Your task to perform on an android device: turn smart compose on in the gmail app Image 0: 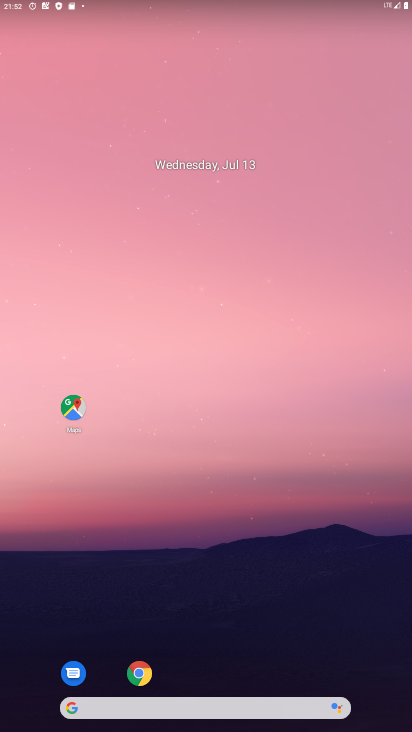
Step 0: click (267, 206)
Your task to perform on an android device: turn smart compose on in the gmail app Image 1: 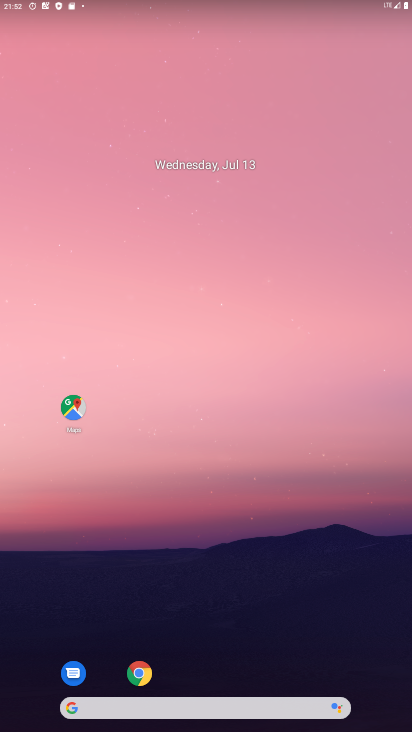
Step 1: drag from (290, 171) to (259, 731)
Your task to perform on an android device: turn smart compose on in the gmail app Image 2: 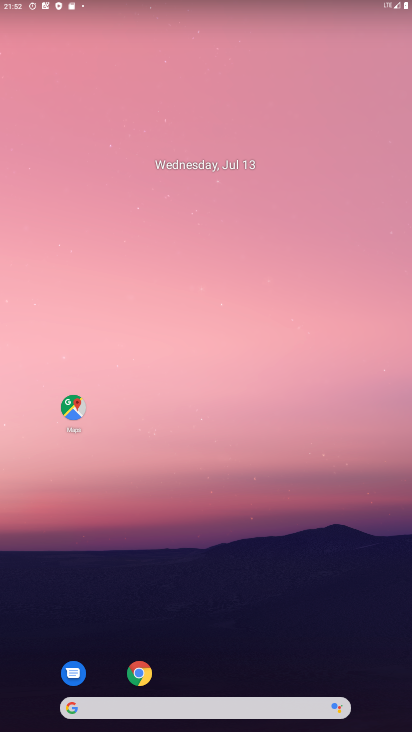
Step 2: drag from (172, 662) to (189, 251)
Your task to perform on an android device: turn smart compose on in the gmail app Image 3: 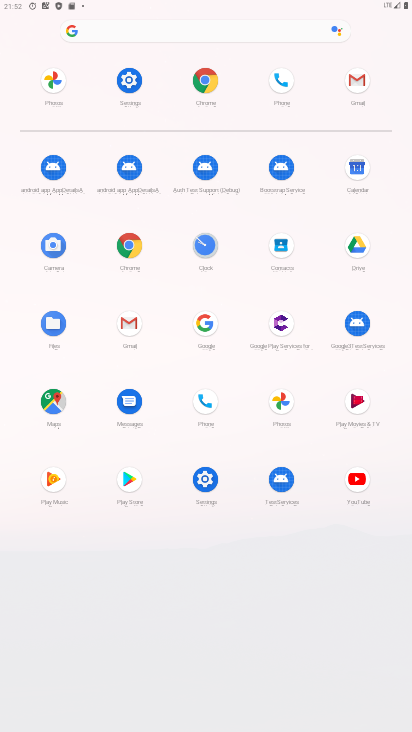
Step 3: click (126, 317)
Your task to perform on an android device: turn smart compose on in the gmail app Image 4: 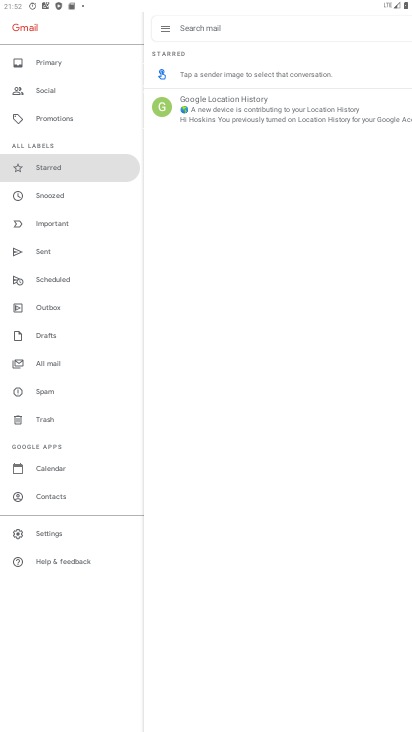
Step 4: click (41, 527)
Your task to perform on an android device: turn smart compose on in the gmail app Image 5: 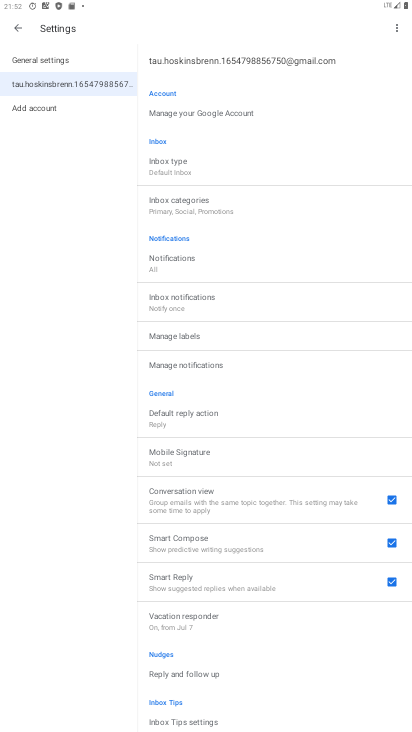
Step 5: click (80, 83)
Your task to perform on an android device: turn smart compose on in the gmail app Image 6: 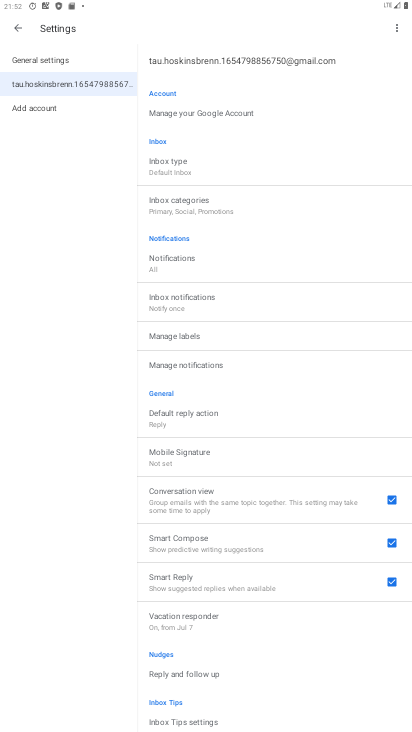
Step 6: drag from (266, 574) to (254, 257)
Your task to perform on an android device: turn smart compose on in the gmail app Image 7: 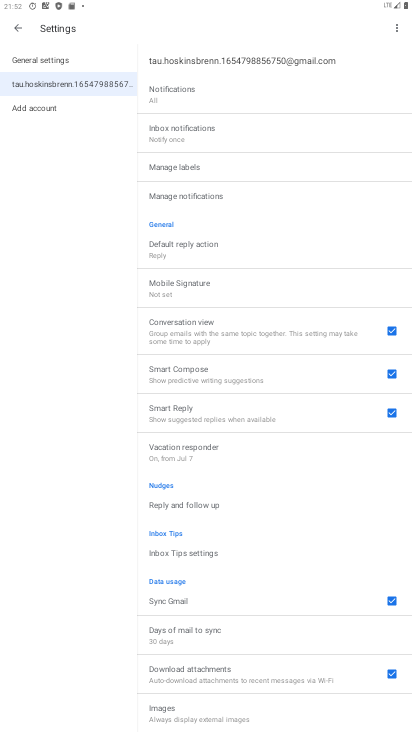
Step 7: drag from (258, 220) to (218, 725)
Your task to perform on an android device: turn smart compose on in the gmail app Image 8: 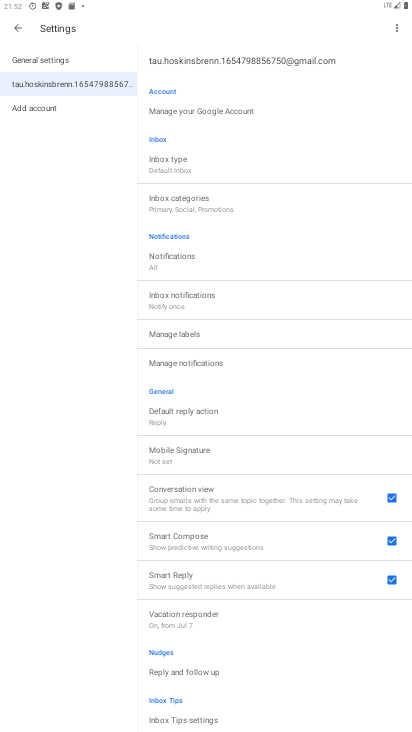
Step 8: click (392, 540)
Your task to perform on an android device: turn smart compose on in the gmail app Image 9: 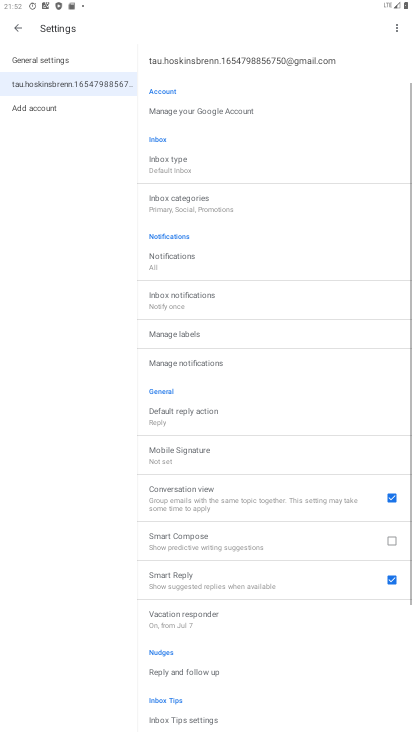
Step 9: task complete